Your task to perform on an android device: toggle sleep mode Image 0: 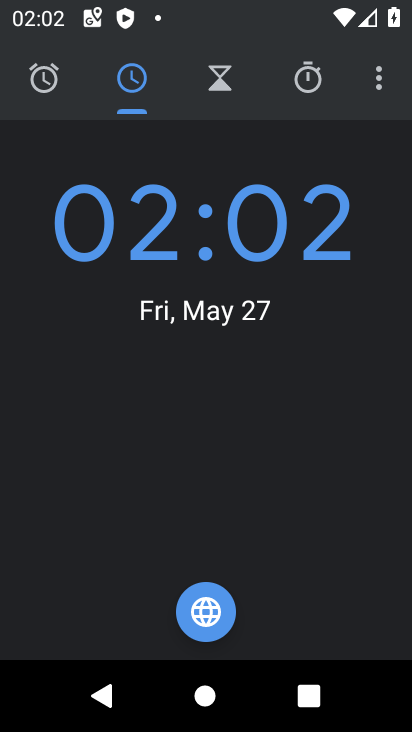
Step 0: press home button
Your task to perform on an android device: toggle sleep mode Image 1: 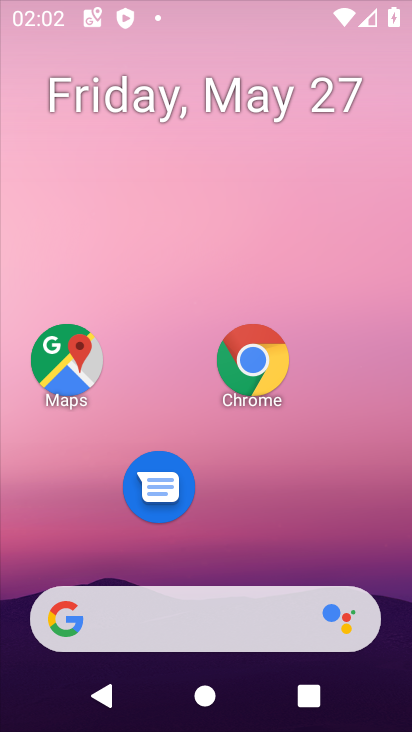
Step 1: drag from (270, 523) to (301, 62)
Your task to perform on an android device: toggle sleep mode Image 2: 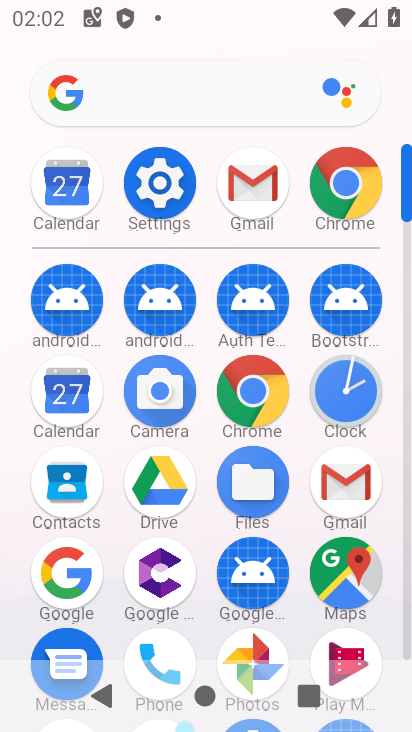
Step 2: click (173, 180)
Your task to perform on an android device: toggle sleep mode Image 3: 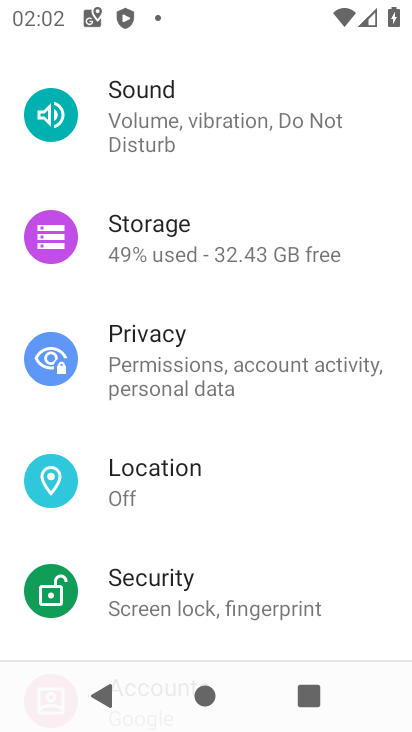
Step 3: drag from (211, 124) to (234, 294)
Your task to perform on an android device: toggle sleep mode Image 4: 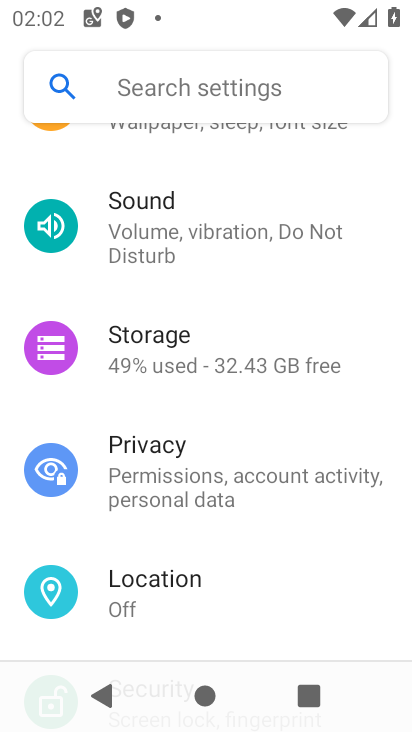
Step 4: drag from (204, 196) to (216, 266)
Your task to perform on an android device: toggle sleep mode Image 5: 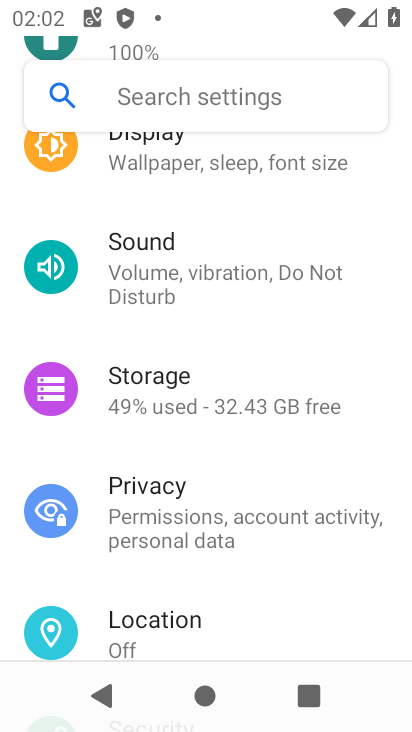
Step 5: click (183, 151)
Your task to perform on an android device: toggle sleep mode Image 6: 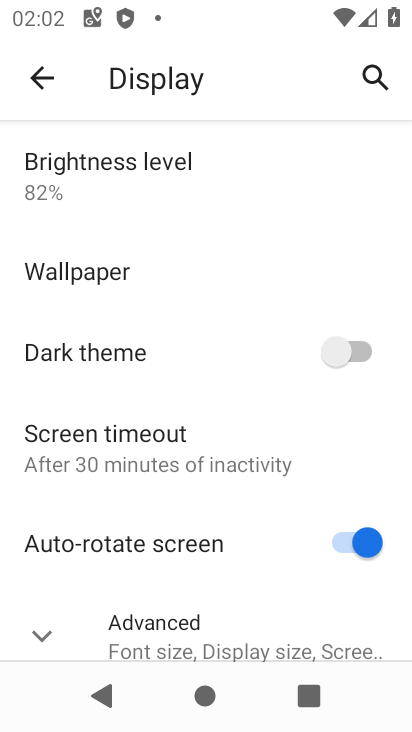
Step 6: click (159, 451)
Your task to perform on an android device: toggle sleep mode Image 7: 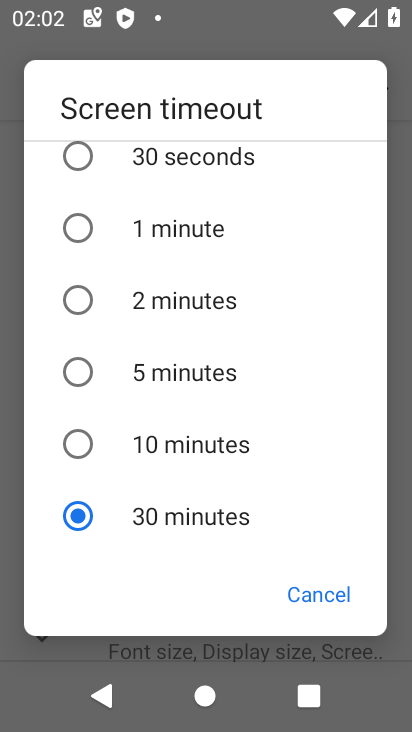
Step 7: click (73, 373)
Your task to perform on an android device: toggle sleep mode Image 8: 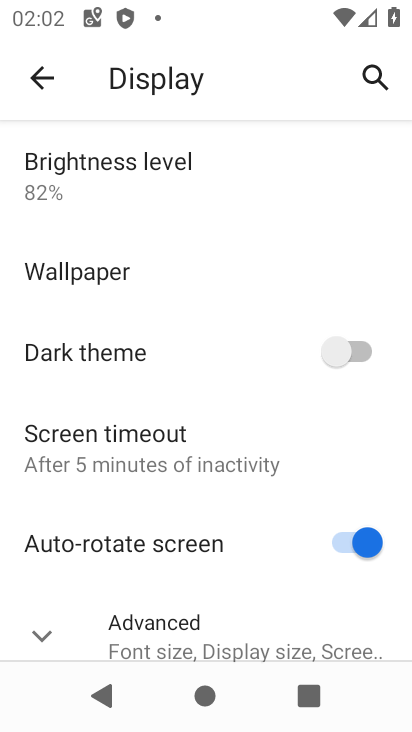
Step 8: task complete